Your task to perform on an android device: Open Google Image 0: 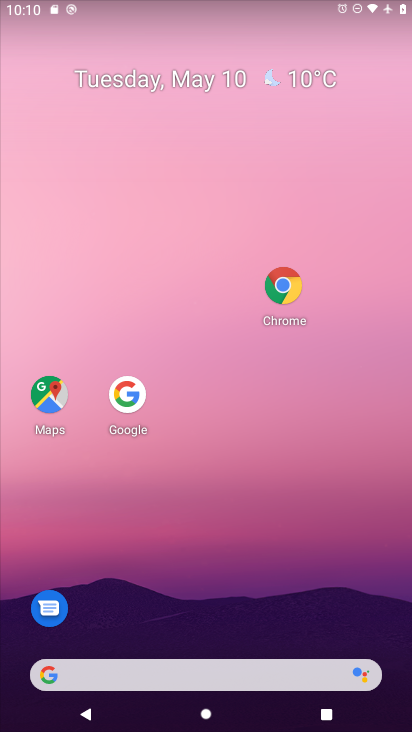
Step 0: click (136, 400)
Your task to perform on an android device: Open Google Image 1: 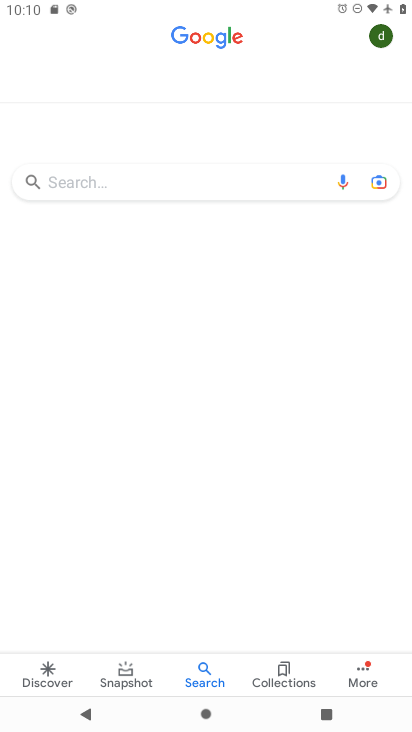
Step 1: task complete